Your task to perform on an android device: open app "Viber Messenger" Image 0: 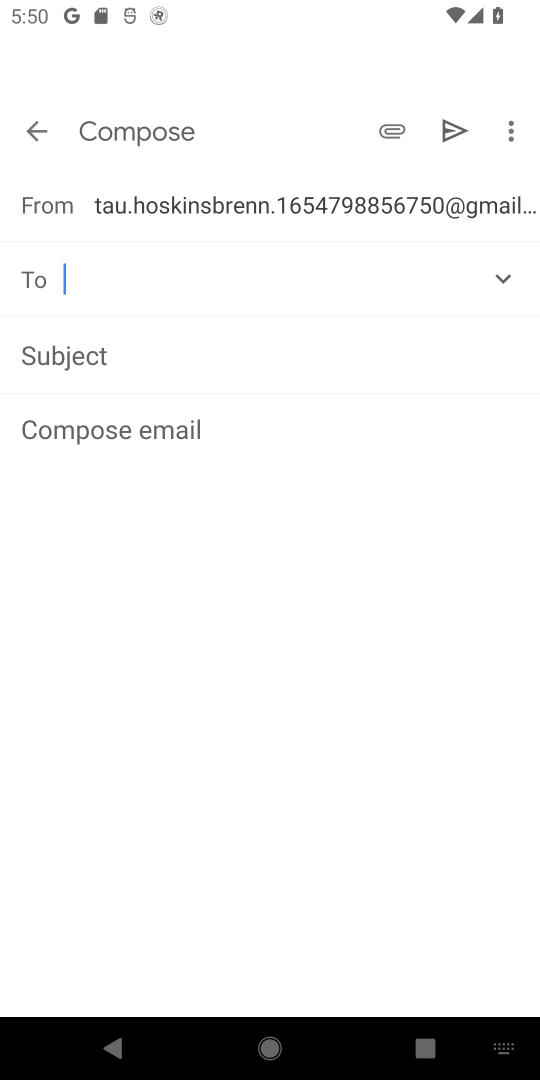
Step 0: press home button
Your task to perform on an android device: open app "Viber Messenger" Image 1: 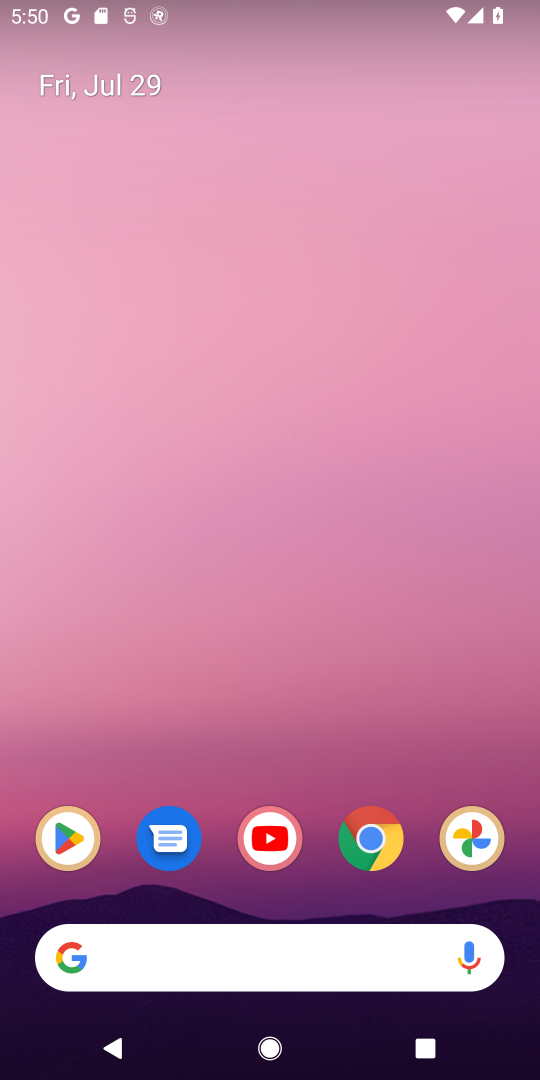
Step 1: click (76, 824)
Your task to perform on an android device: open app "Viber Messenger" Image 2: 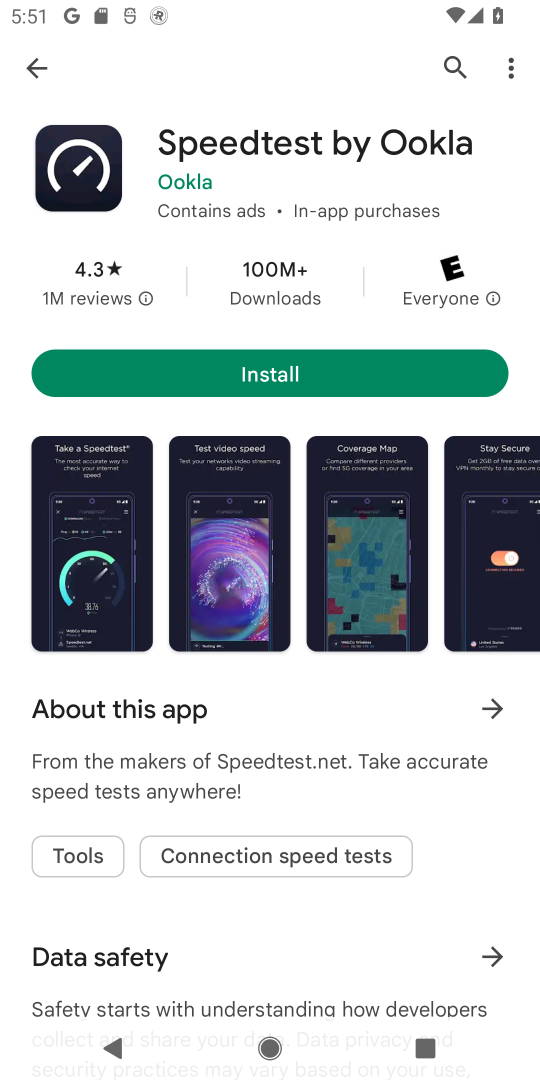
Step 2: click (444, 60)
Your task to perform on an android device: open app "Viber Messenger" Image 3: 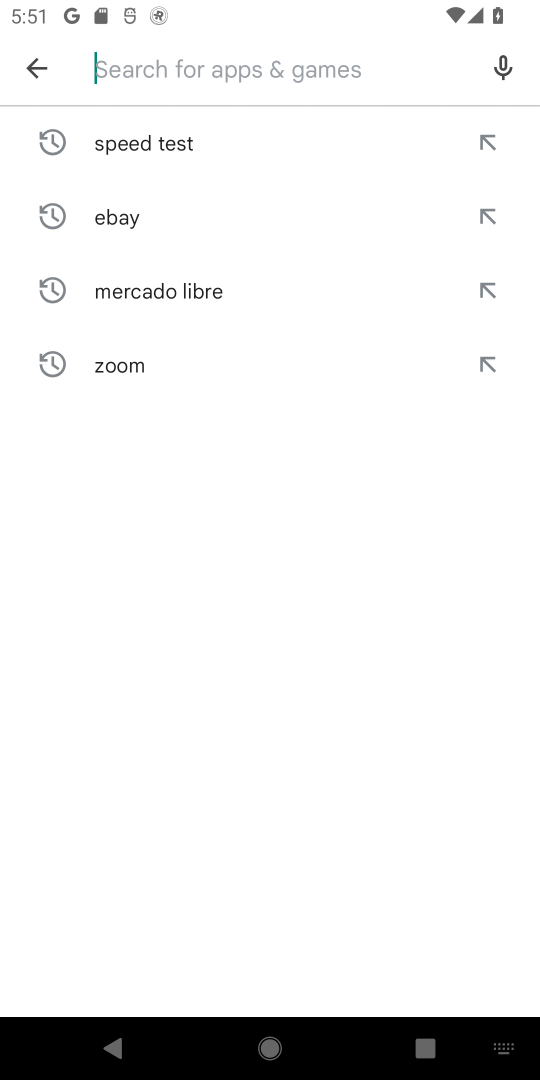
Step 3: click (305, 63)
Your task to perform on an android device: open app "Viber Messenger" Image 4: 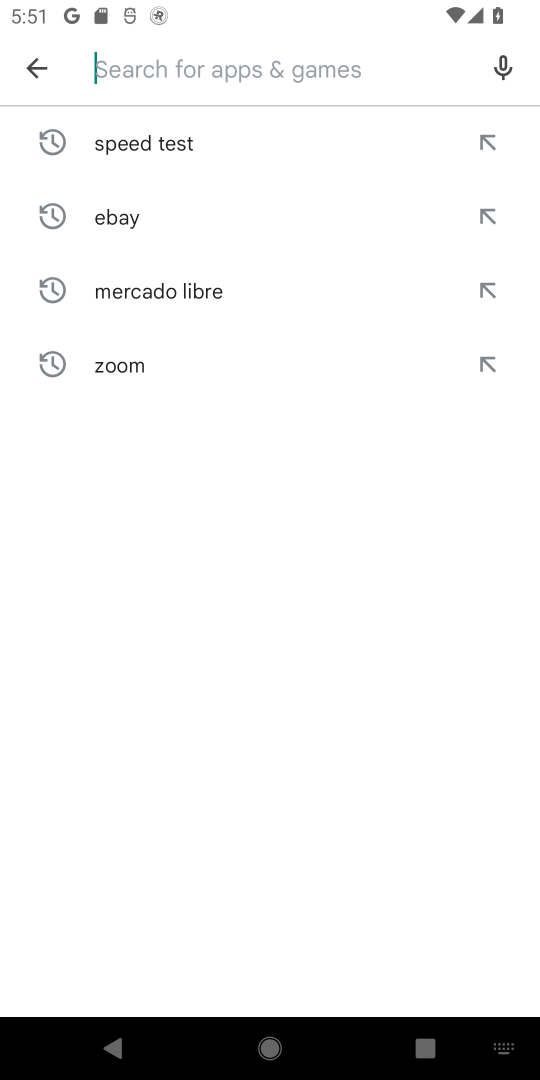
Step 4: type "viber messenger"
Your task to perform on an android device: open app "Viber Messenger" Image 5: 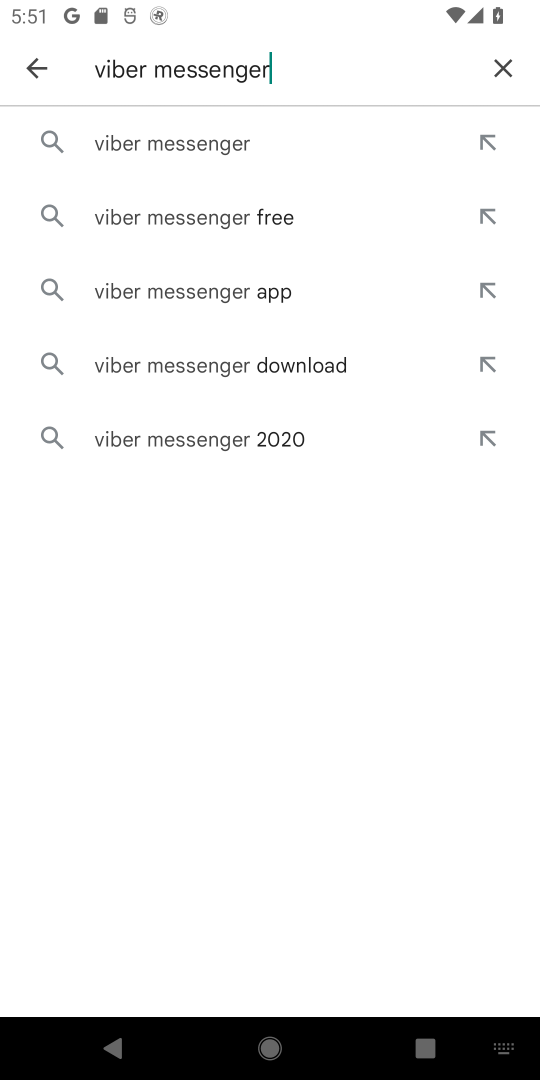
Step 5: click (273, 140)
Your task to perform on an android device: open app "Viber Messenger" Image 6: 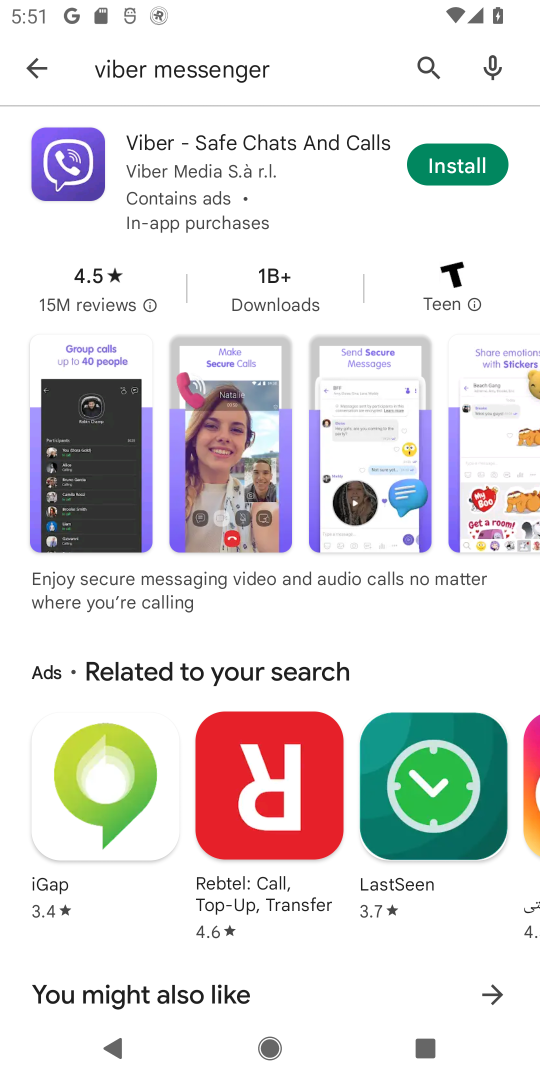
Step 6: task complete